Your task to perform on an android device: Open my contact list Image 0: 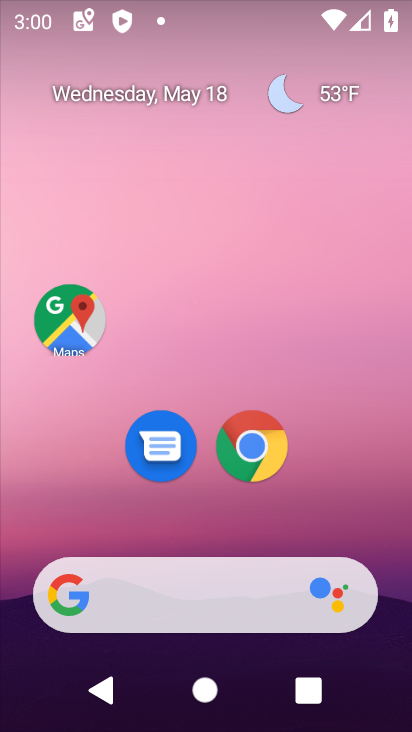
Step 0: drag from (388, 516) to (68, 506)
Your task to perform on an android device: Open my contact list Image 1: 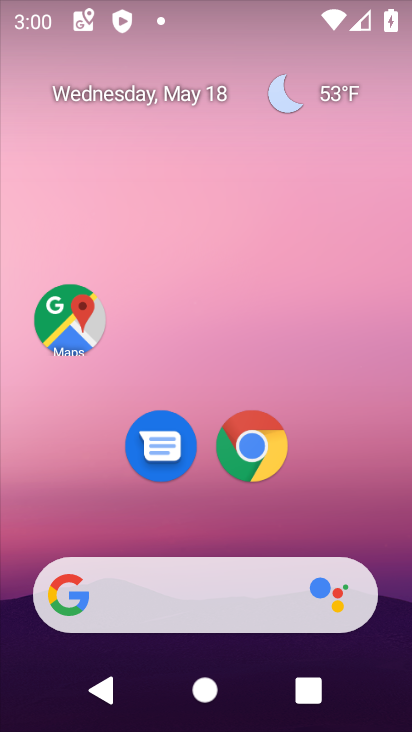
Step 1: drag from (339, 32) to (235, 14)
Your task to perform on an android device: Open my contact list Image 2: 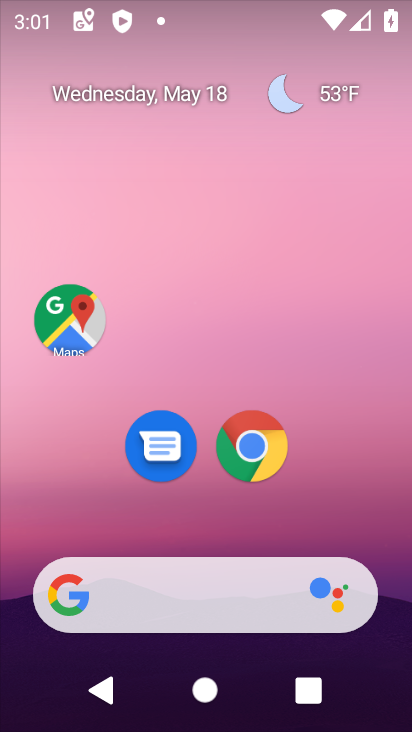
Step 2: drag from (304, 521) to (349, 83)
Your task to perform on an android device: Open my contact list Image 3: 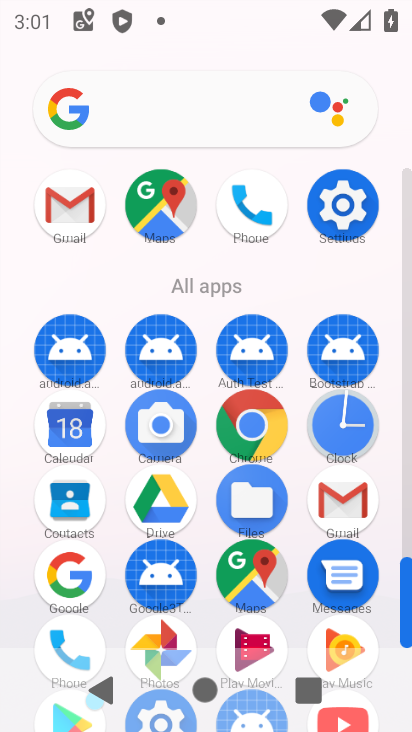
Step 3: click (66, 511)
Your task to perform on an android device: Open my contact list Image 4: 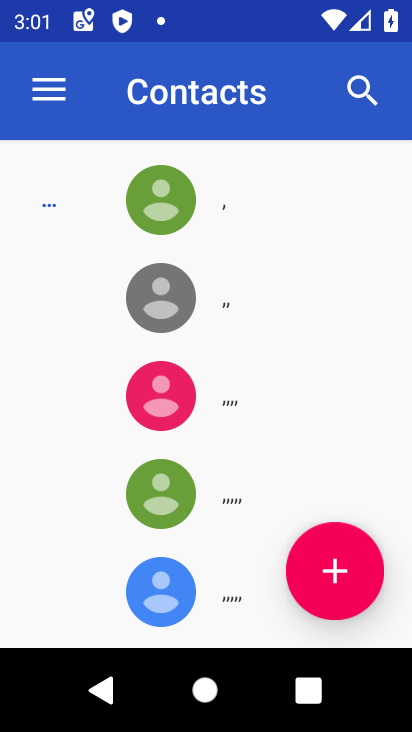
Step 4: task complete